Your task to perform on an android device: Open Youtube and go to the subscriptions tab Image 0: 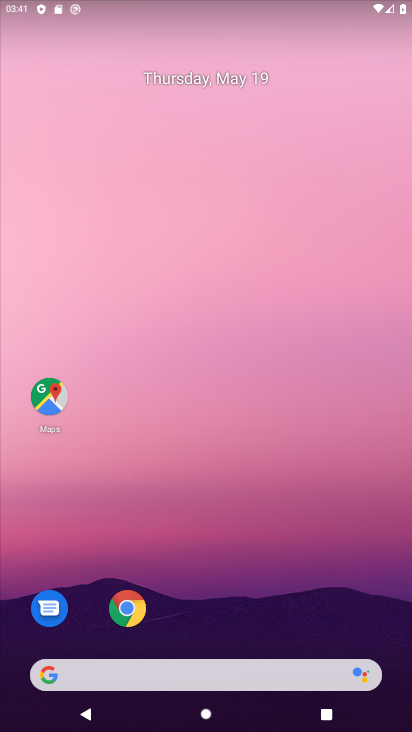
Step 0: drag from (273, 613) to (177, 177)
Your task to perform on an android device: Open Youtube and go to the subscriptions tab Image 1: 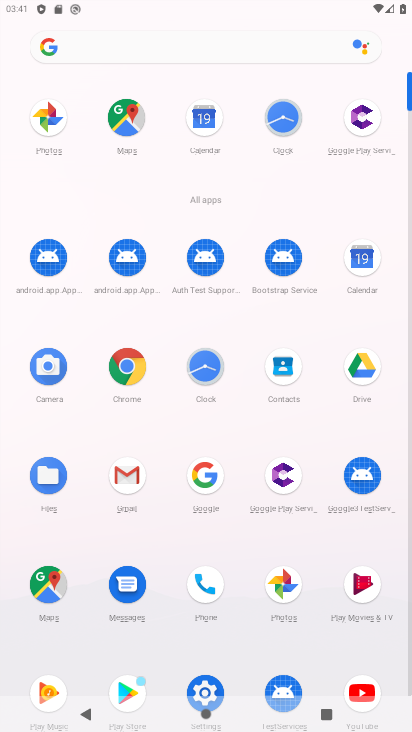
Step 1: drag from (359, 641) to (331, 482)
Your task to perform on an android device: Open Youtube and go to the subscriptions tab Image 2: 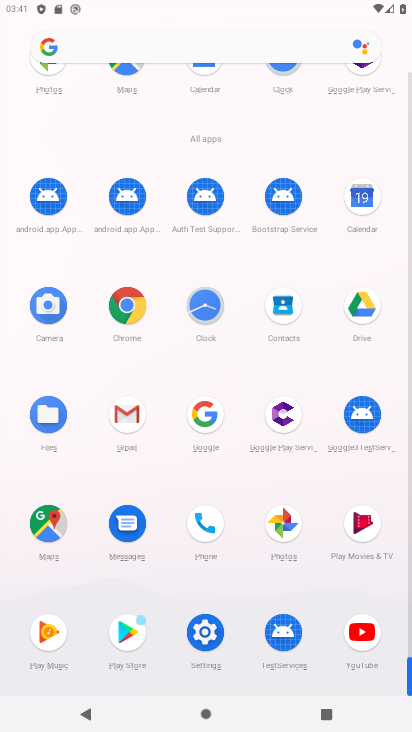
Step 2: click (363, 630)
Your task to perform on an android device: Open Youtube and go to the subscriptions tab Image 3: 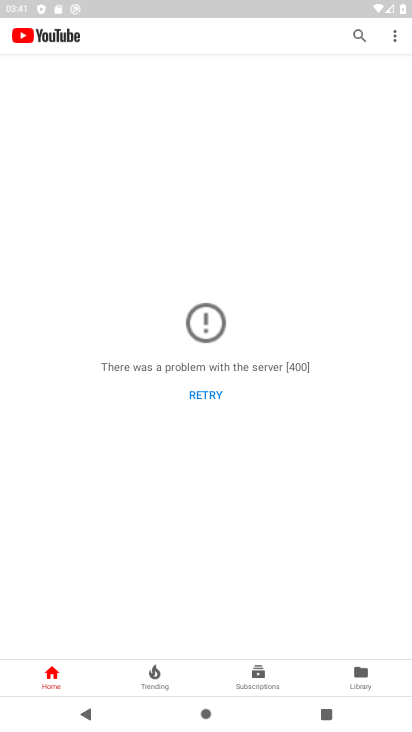
Step 3: click (202, 395)
Your task to perform on an android device: Open Youtube and go to the subscriptions tab Image 4: 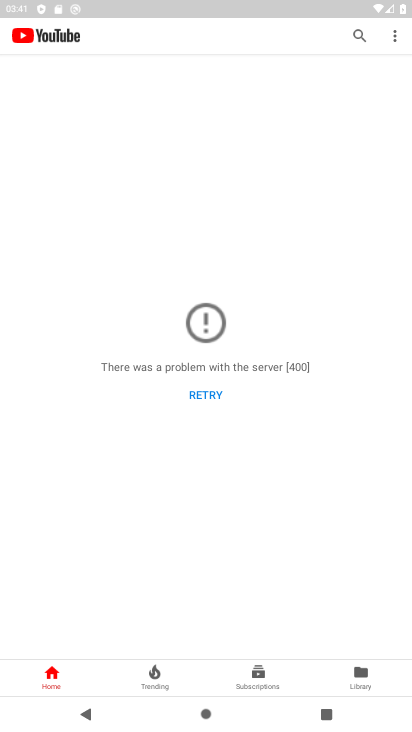
Step 4: click (212, 391)
Your task to perform on an android device: Open Youtube and go to the subscriptions tab Image 5: 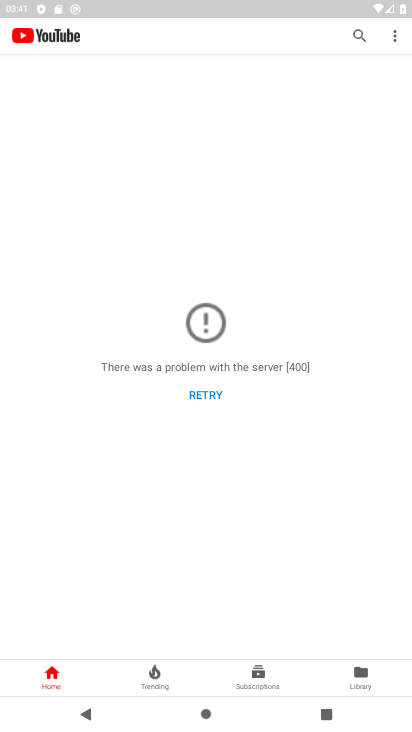
Step 5: click (212, 390)
Your task to perform on an android device: Open Youtube and go to the subscriptions tab Image 6: 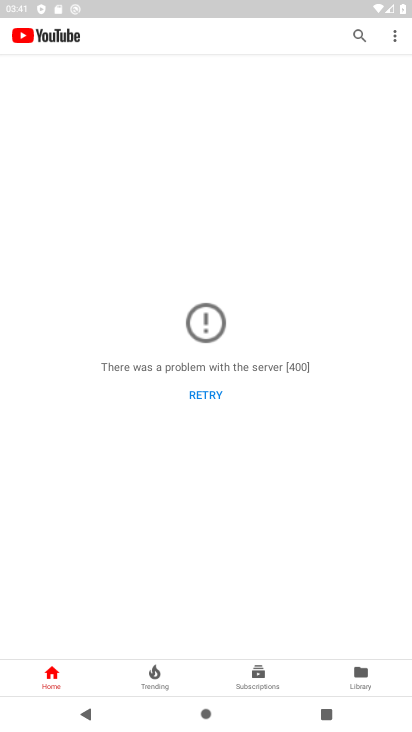
Step 6: click (190, 390)
Your task to perform on an android device: Open Youtube and go to the subscriptions tab Image 7: 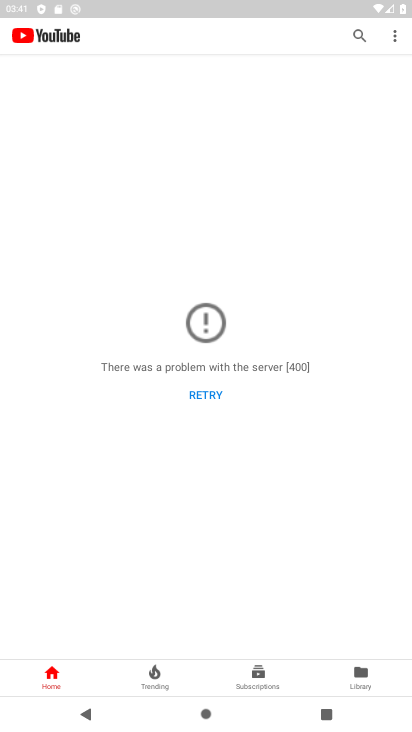
Step 7: task complete